Your task to perform on an android device: Go to CNN.com Image 0: 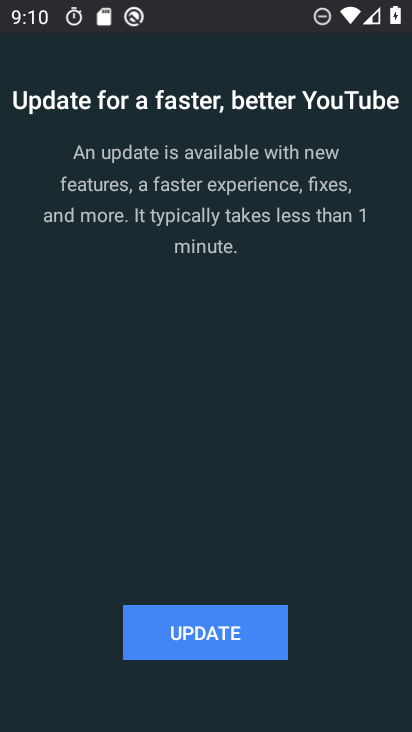
Step 0: press back button
Your task to perform on an android device: Go to CNN.com Image 1: 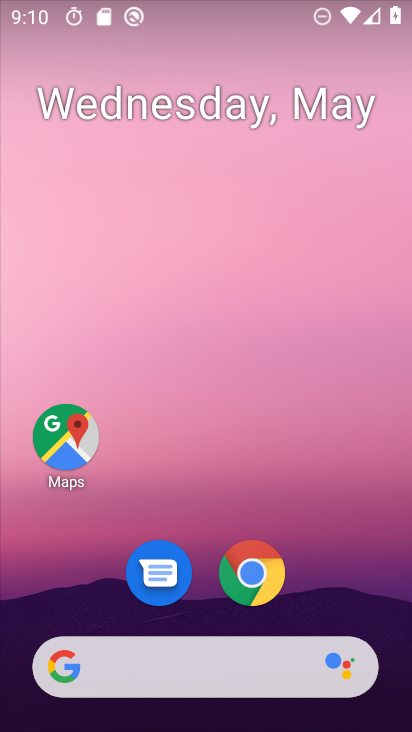
Step 1: click (253, 573)
Your task to perform on an android device: Go to CNN.com Image 2: 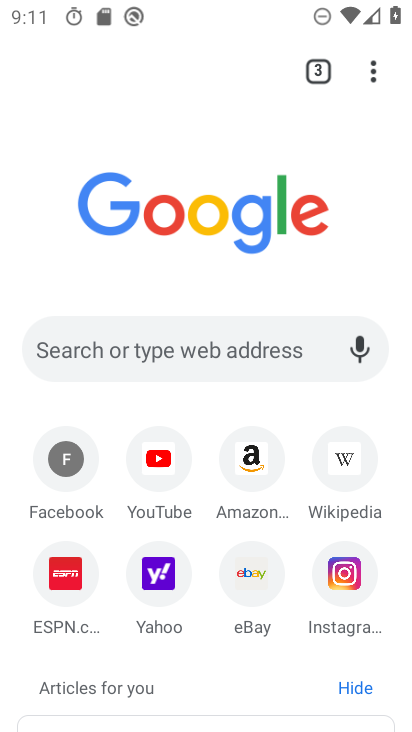
Step 2: click (207, 349)
Your task to perform on an android device: Go to CNN.com Image 3: 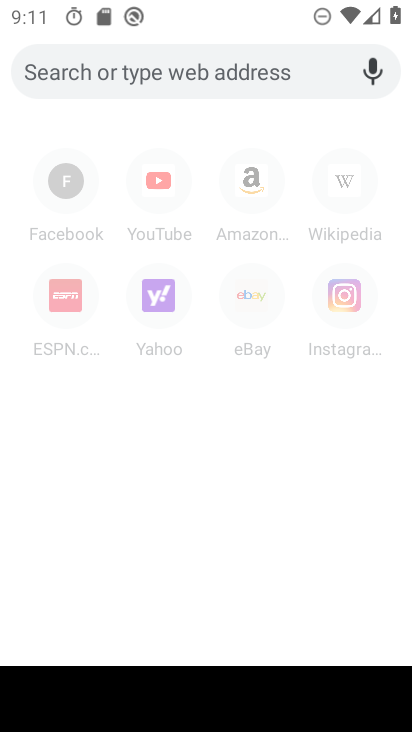
Step 3: type "CNN.com"
Your task to perform on an android device: Go to CNN.com Image 4: 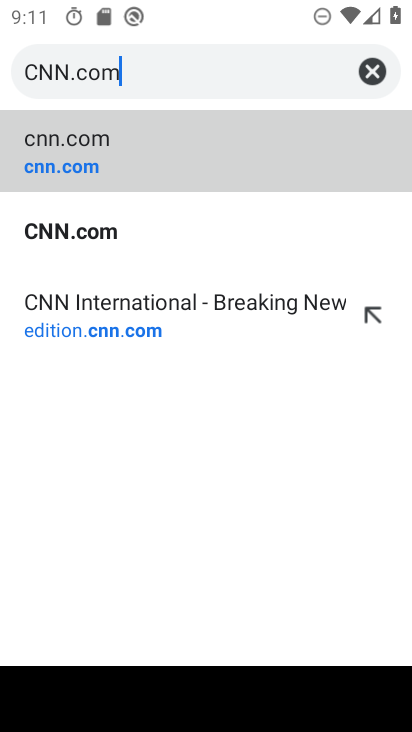
Step 4: click (84, 224)
Your task to perform on an android device: Go to CNN.com Image 5: 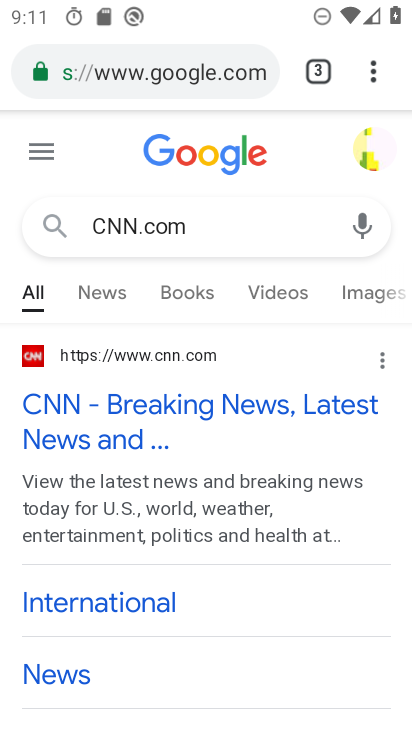
Step 5: task complete